Your task to perform on an android device: change the clock display to show seconds Image 0: 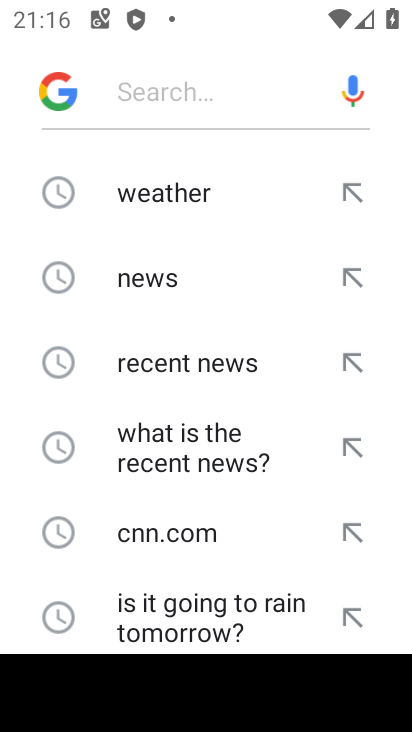
Step 0: press home button
Your task to perform on an android device: change the clock display to show seconds Image 1: 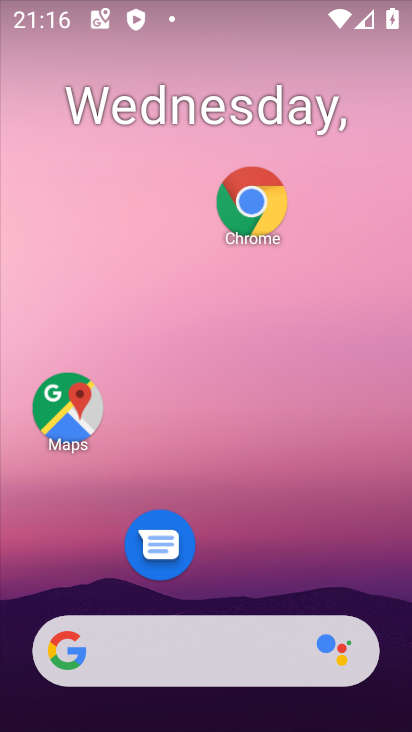
Step 1: drag from (47, 631) to (15, 155)
Your task to perform on an android device: change the clock display to show seconds Image 2: 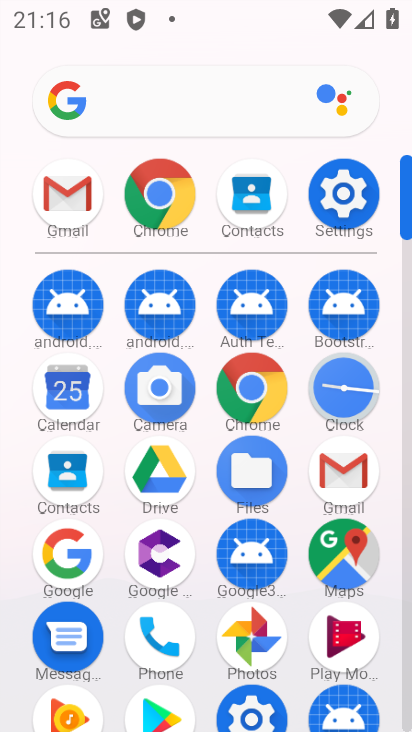
Step 2: click (350, 389)
Your task to perform on an android device: change the clock display to show seconds Image 3: 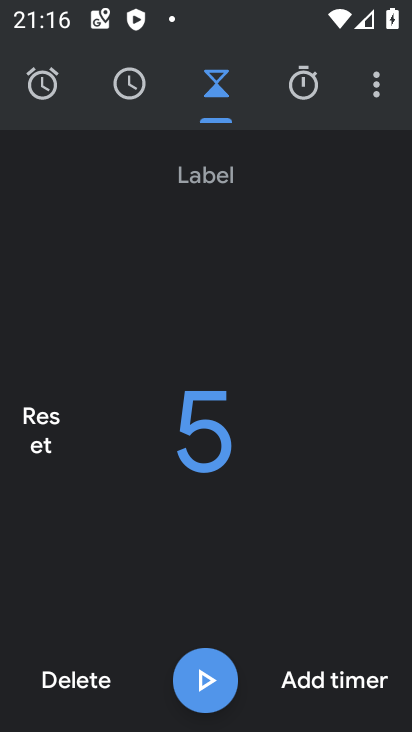
Step 3: click (393, 87)
Your task to perform on an android device: change the clock display to show seconds Image 4: 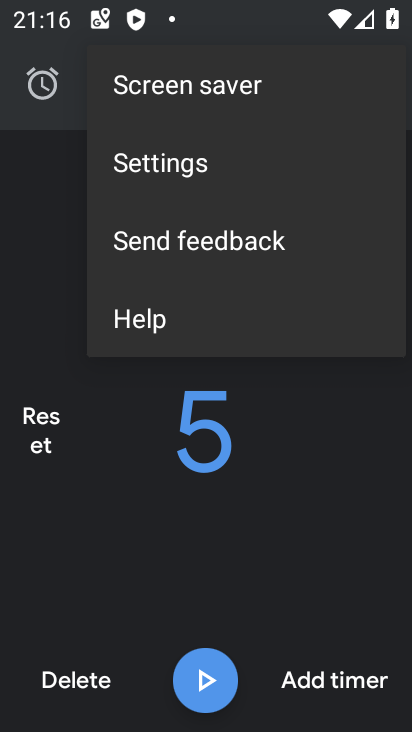
Step 4: click (257, 152)
Your task to perform on an android device: change the clock display to show seconds Image 5: 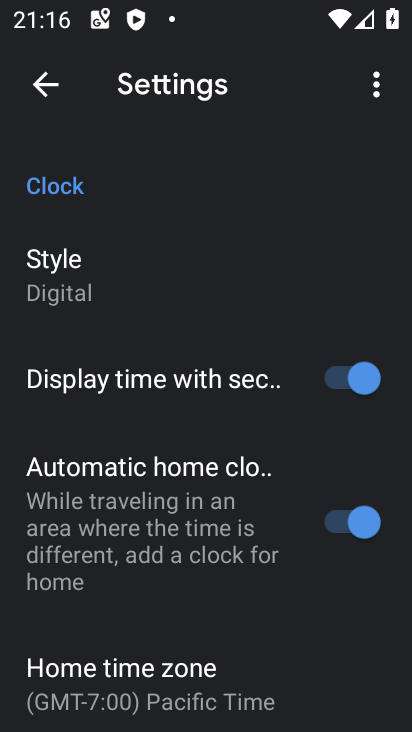
Step 5: task complete